Your task to perform on an android device: remove spam from my inbox in the gmail app Image 0: 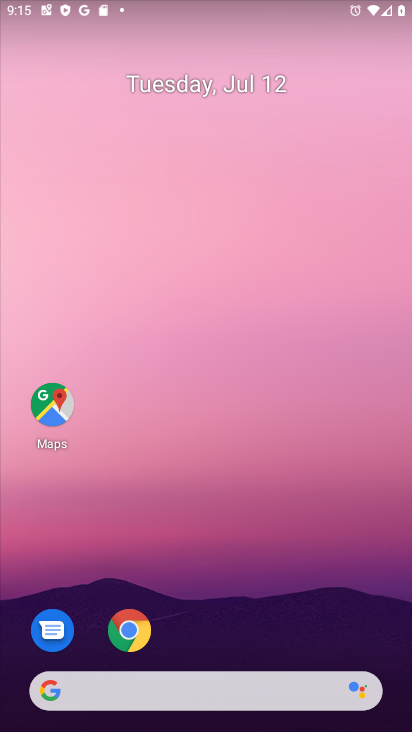
Step 0: drag from (220, 616) to (236, 207)
Your task to perform on an android device: remove spam from my inbox in the gmail app Image 1: 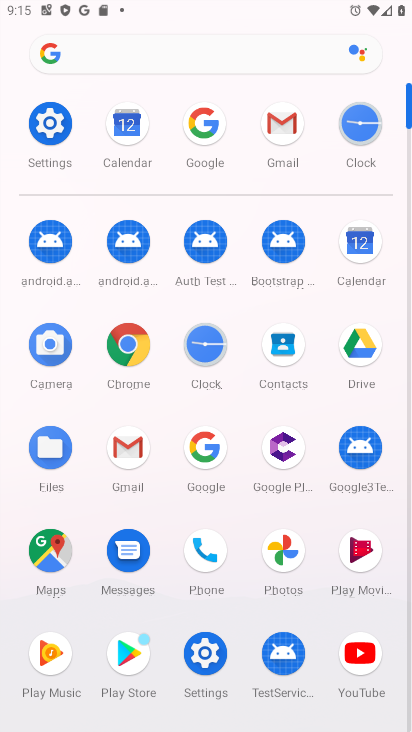
Step 1: click (281, 121)
Your task to perform on an android device: remove spam from my inbox in the gmail app Image 2: 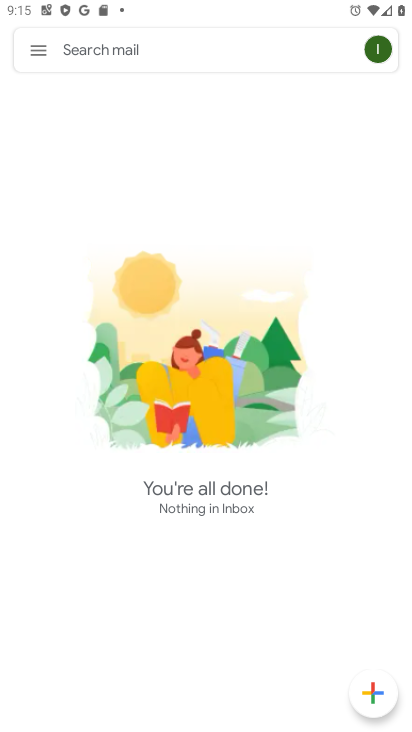
Step 2: click (42, 47)
Your task to perform on an android device: remove spam from my inbox in the gmail app Image 3: 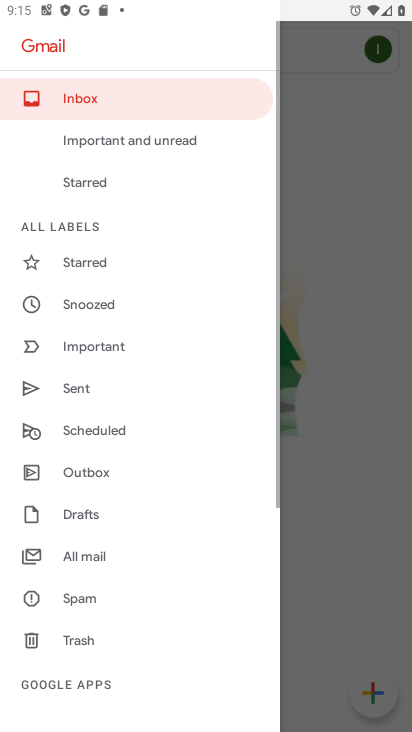
Step 3: click (83, 97)
Your task to perform on an android device: remove spam from my inbox in the gmail app Image 4: 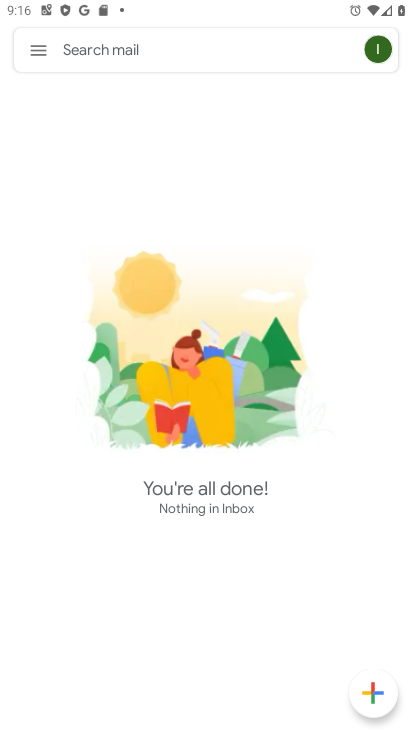
Step 4: task complete